Your task to perform on an android device: Open Google Maps and go to "Timeline" Image 0: 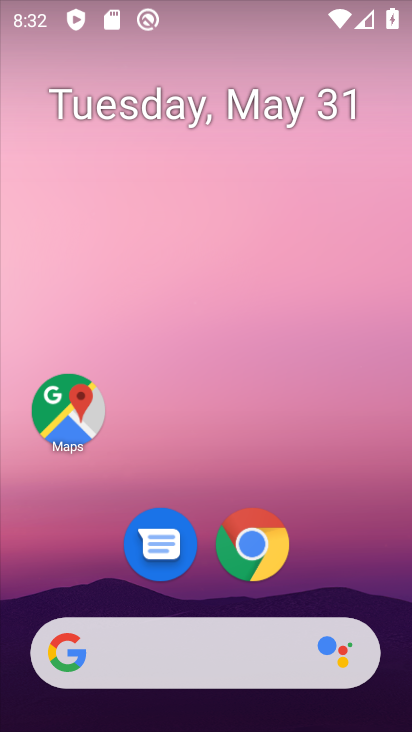
Step 0: click (82, 406)
Your task to perform on an android device: Open Google Maps and go to "Timeline" Image 1: 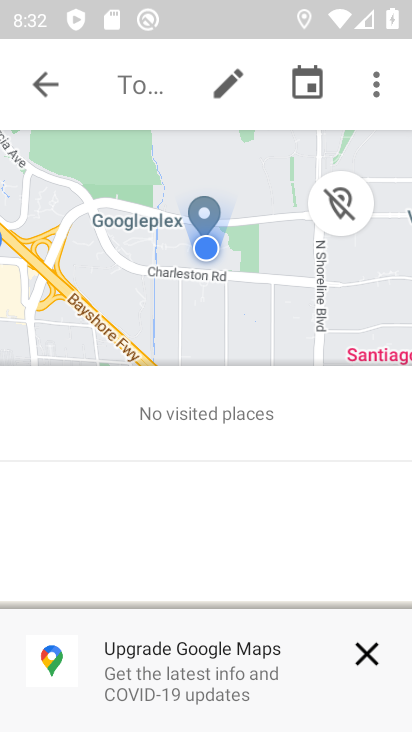
Step 1: task complete